Your task to perform on an android device: Open eBay Image 0: 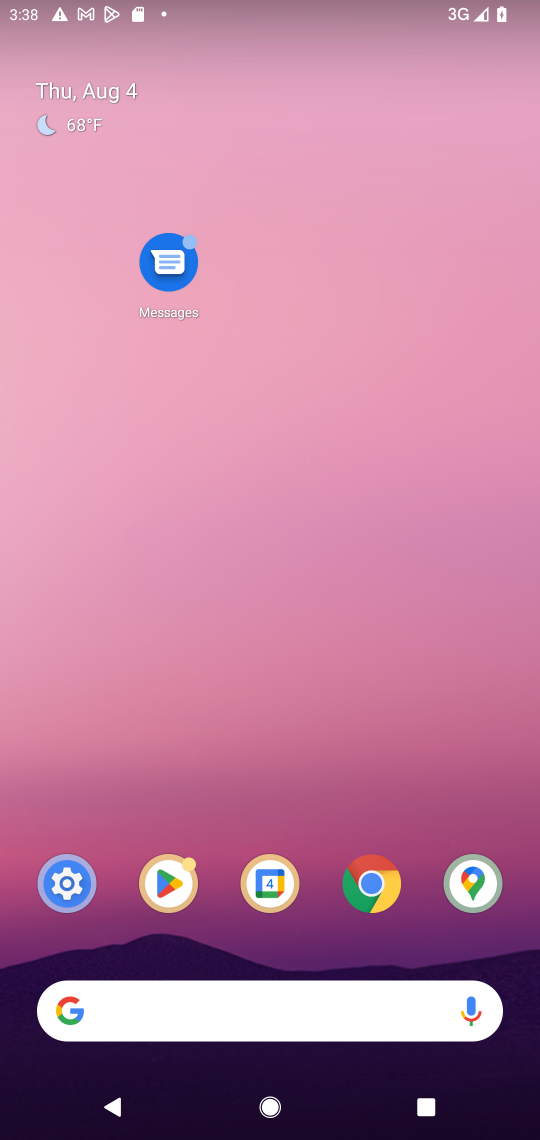
Step 0: click (372, 883)
Your task to perform on an android device: Open eBay Image 1: 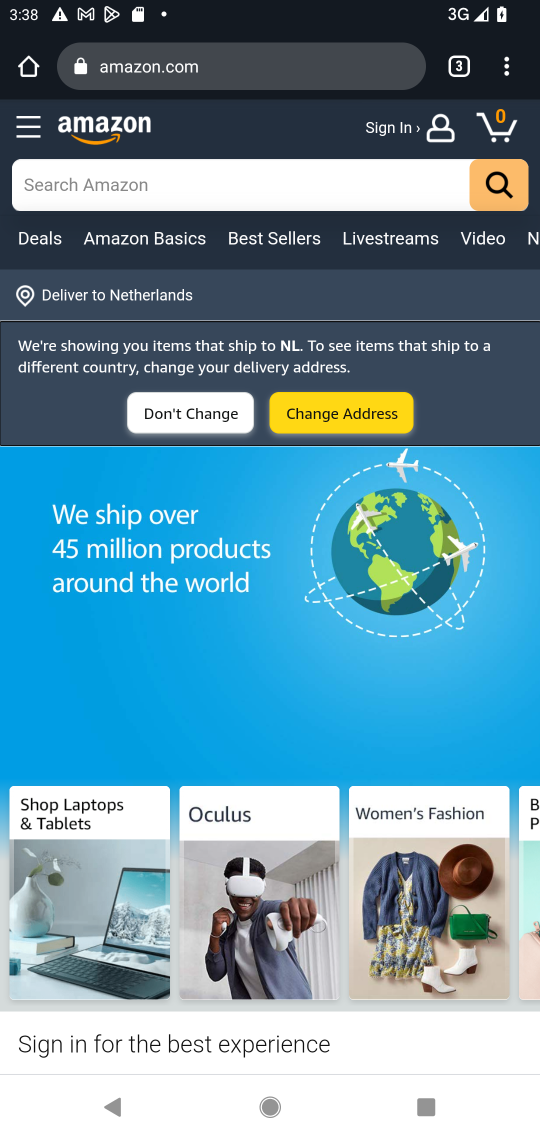
Step 1: click (503, 76)
Your task to perform on an android device: Open eBay Image 2: 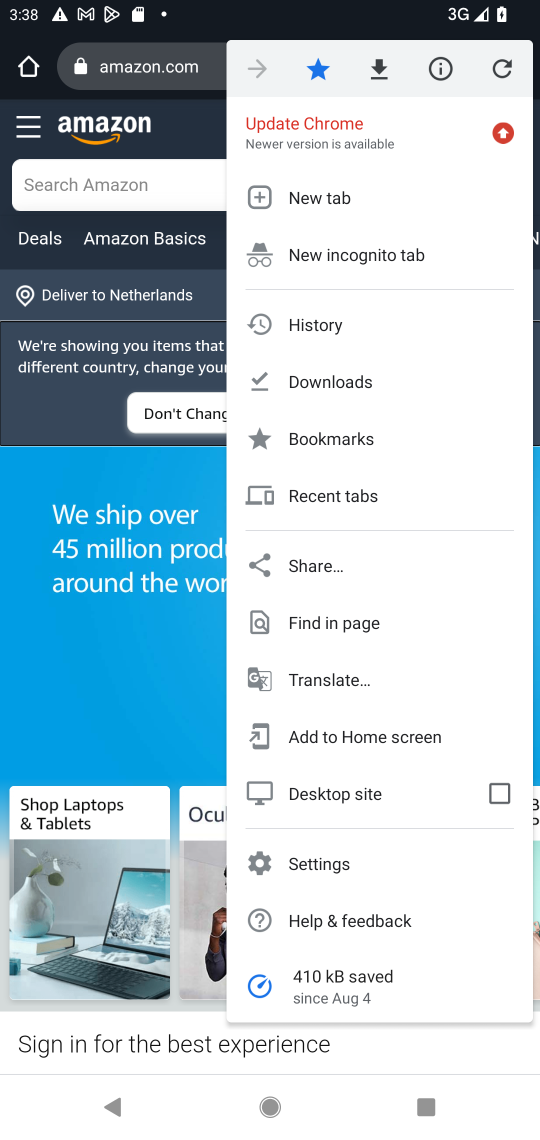
Step 2: click (319, 196)
Your task to perform on an android device: Open eBay Image 3: 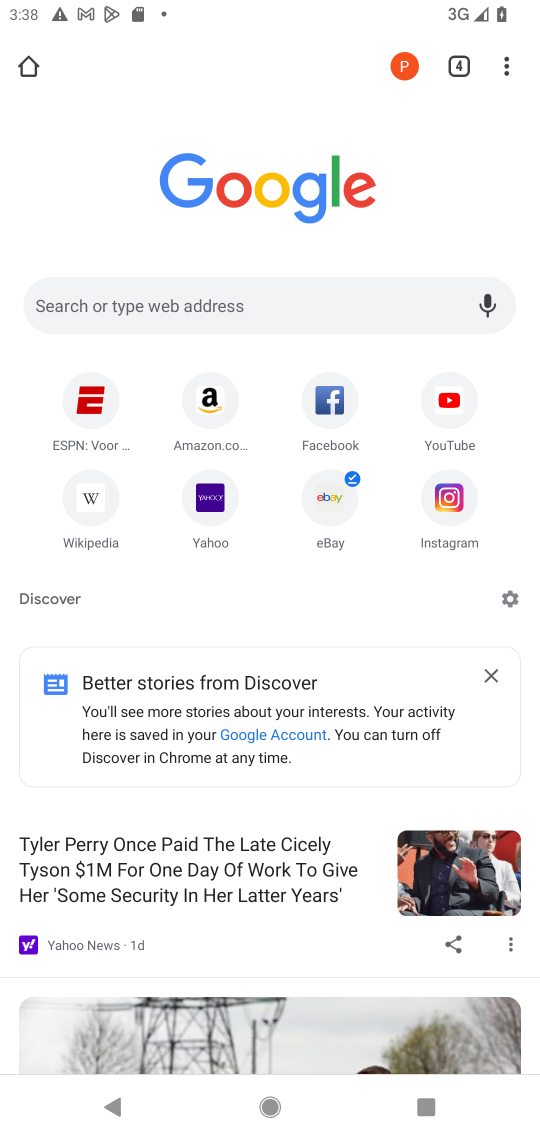
Step 3: click (332, 492)
Your task to perform on an android device: Open eBay Image 4: 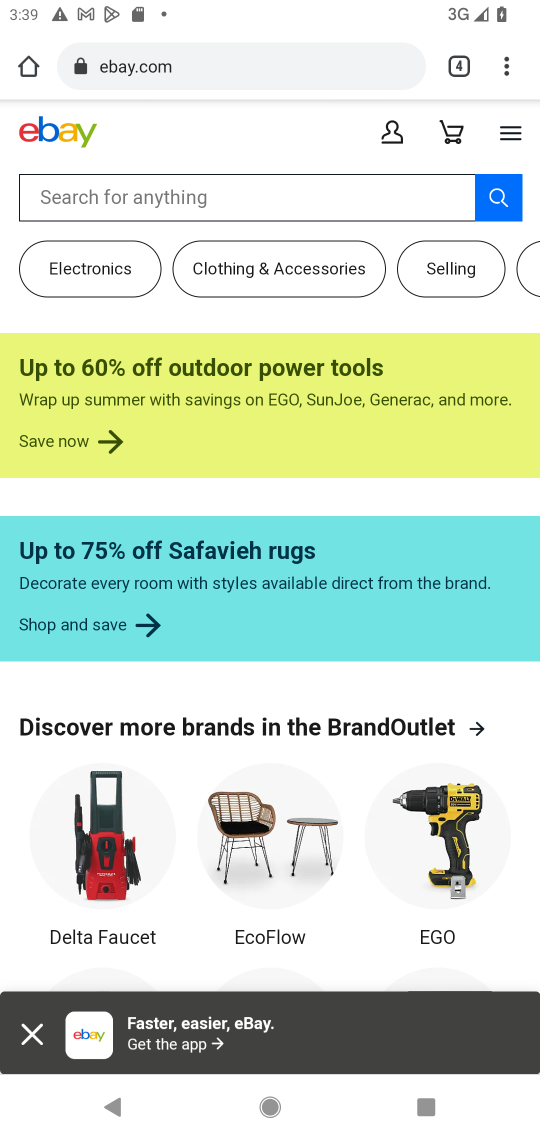
Step 4: task complete